Your task to perform on an android device: turn on bluetooth scan Image 0: 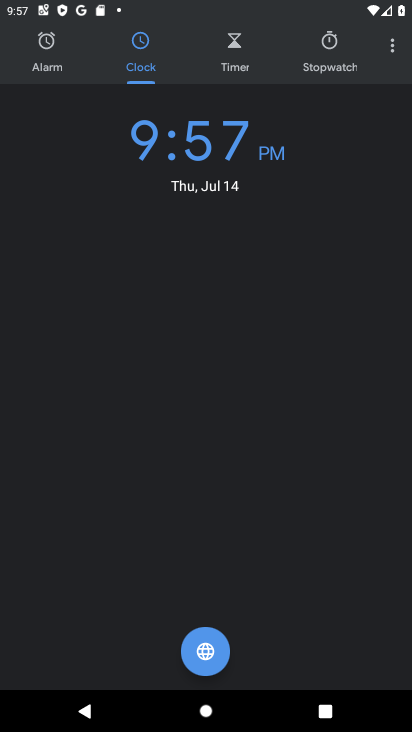
Step 0: press home button
Your task to perform on an android device: turn on bluetooth scan Image 1: 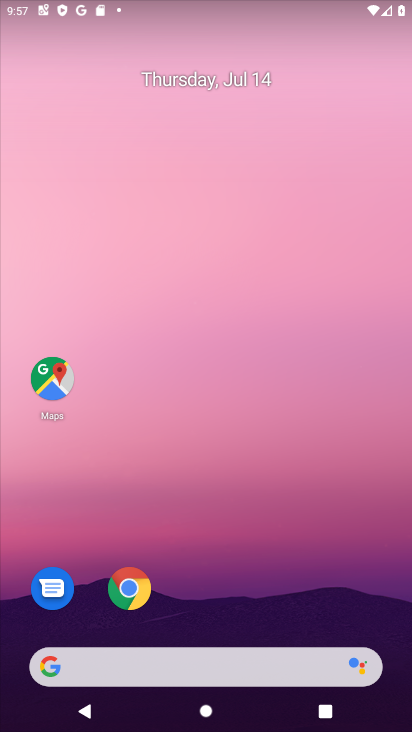
Step 1: drag from (158, 670) to (309, 61)
Your task to perform on an android device: turn on bluetooth scan Image 2: 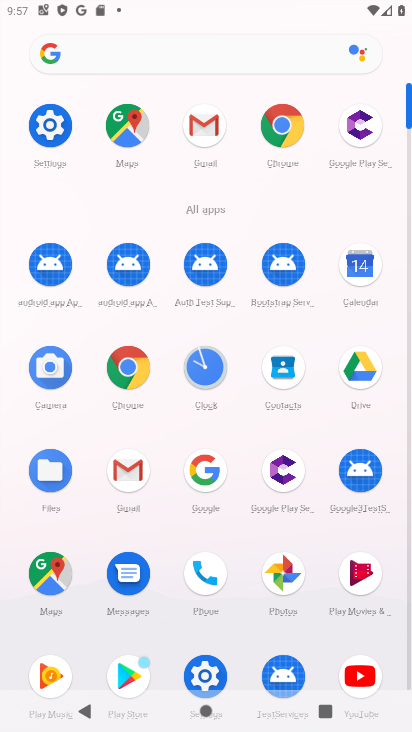
Step 2: click (46, 120)
Your task to perform on an android device: turn on bluetooth scan Image 3: 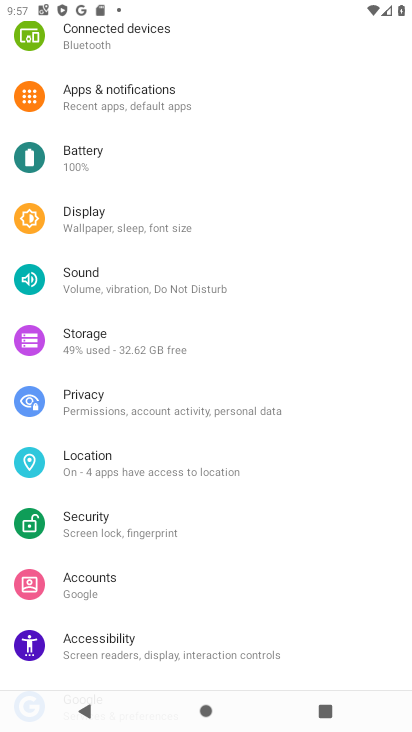
Step 3: click (124, 448)
Your task to perform on an android device: turn on bluetooth scan Image 4: 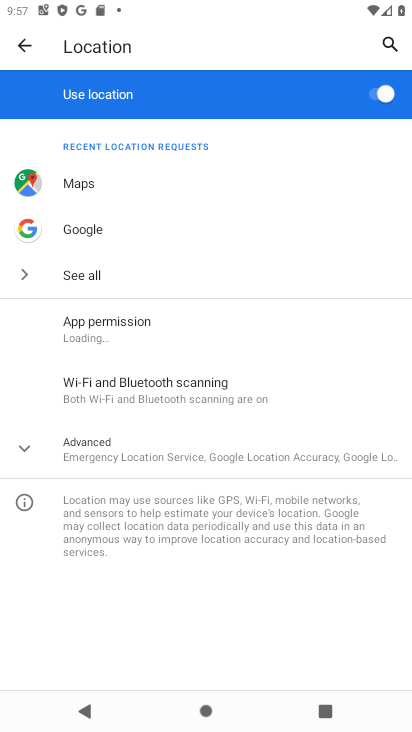
Step 4: click (176, 393)
Your task to perform on an android device: turn on bluetooth scan Image 5: 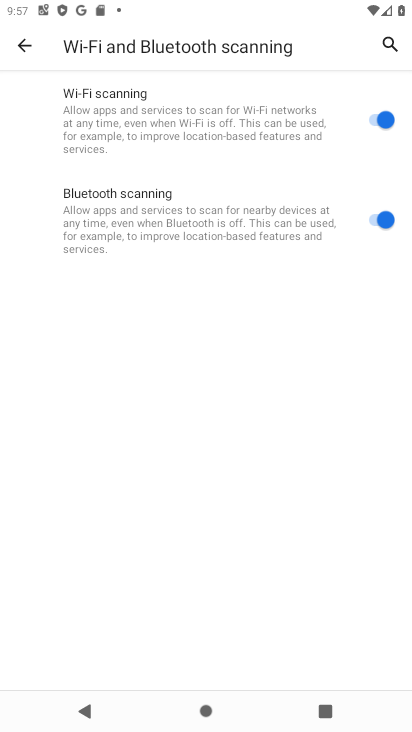
Step 5: task complete